Your task to perform on an android device: Open calendar and show me the first week of next month Image 0: 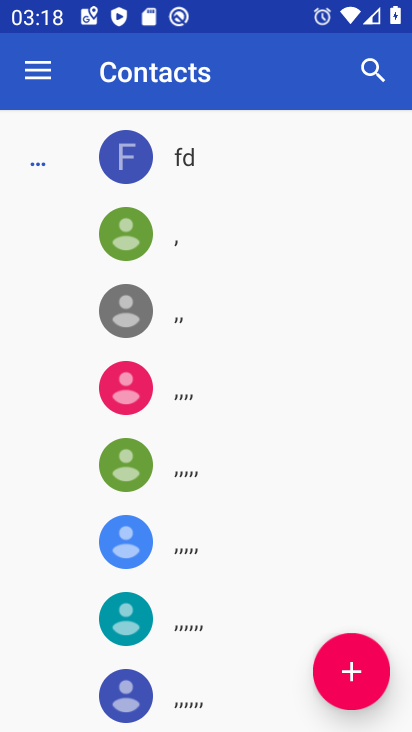
Step 0: press home button
Your task to perform on an android device: Open calendar and show me the first week of next month Image 1: 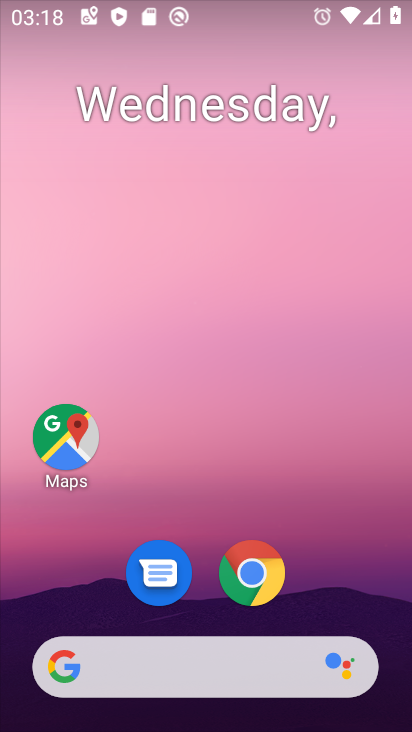
Step 1: drag from (218, 709) to (221, 38)
Your task to perform on an android device: Open calendar and show me the first week of next month Image 2: 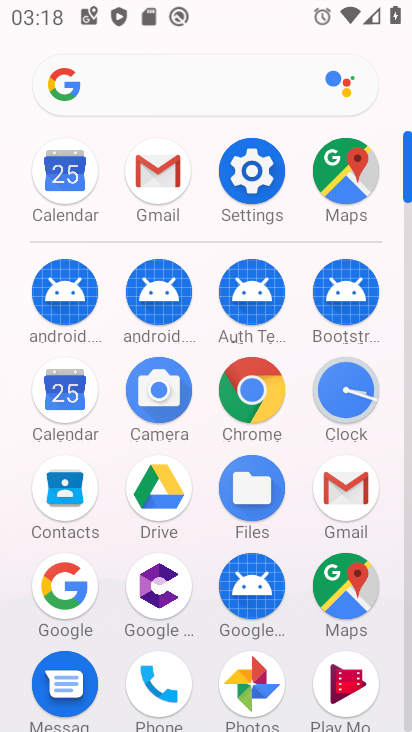
Step 2: click (57, 398)
Your task to perform on an android device: Open calendar and show me the first week of next month Image 3: 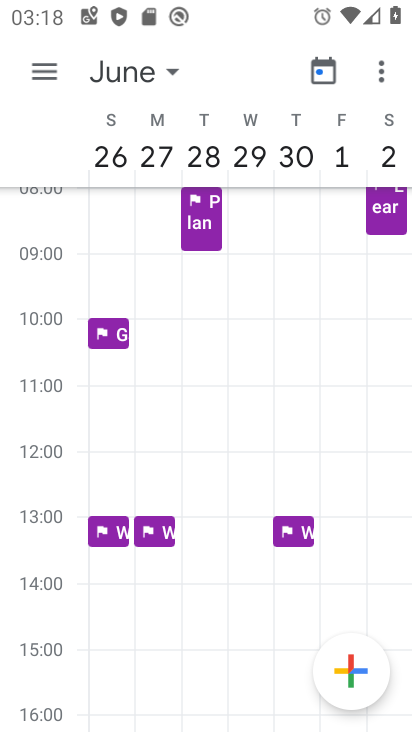
Step 3: click (172, 71)
Your task to perform on an android device: Open calendar and show me the first week of next month Image 4: 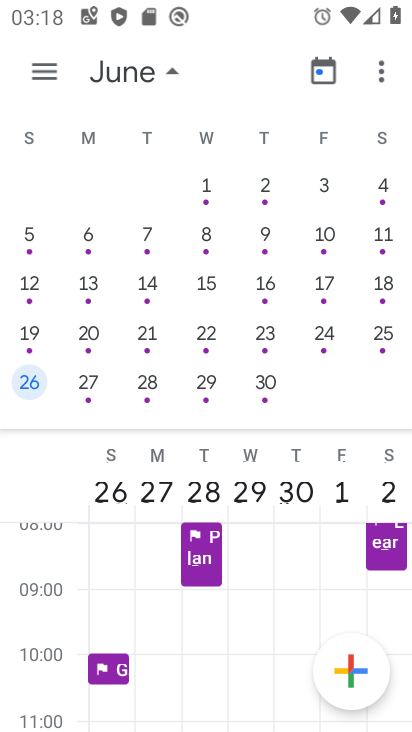
Step 4: click (83, 234)
Your task to perform on an android device: Open calendar and show me the first week of next month Image 5: 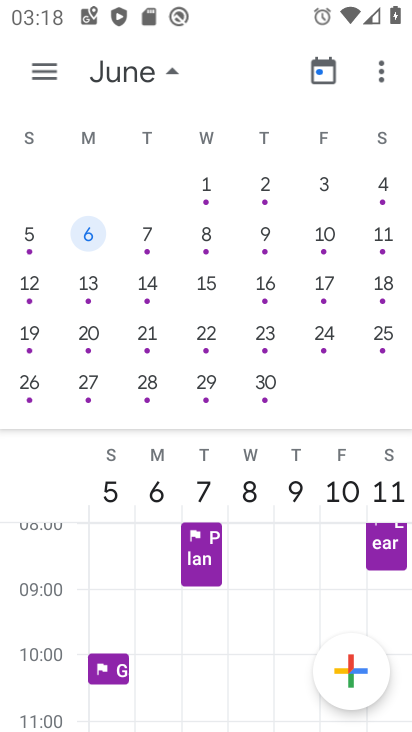
Step 5: click (49, 75)
Your task to perform on an android device: Open calendar and show me the first week of next month Image 6: 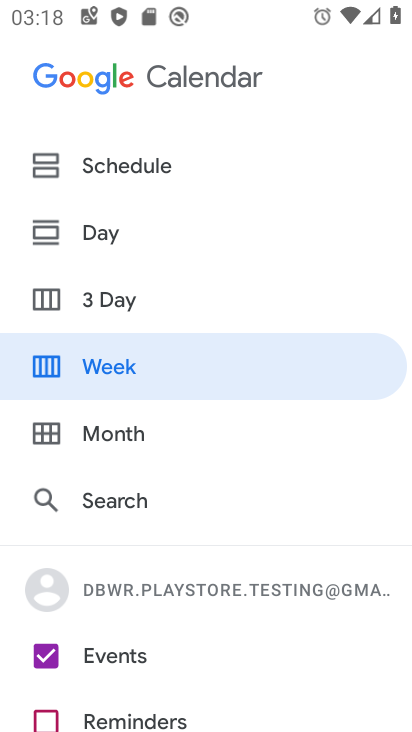
Step 6: click (123, 371)
Your task to perform on an android device: Open calendar and show me the first week of next month Image 7: 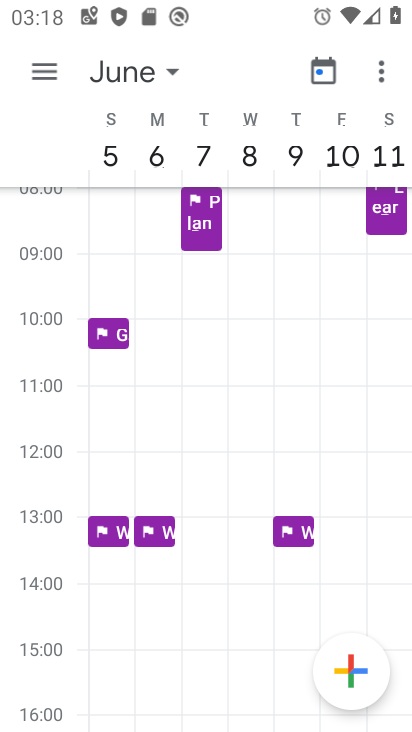
Step 7: task complete